Your task to perform on an android device: change alarm snooze length Image 0: 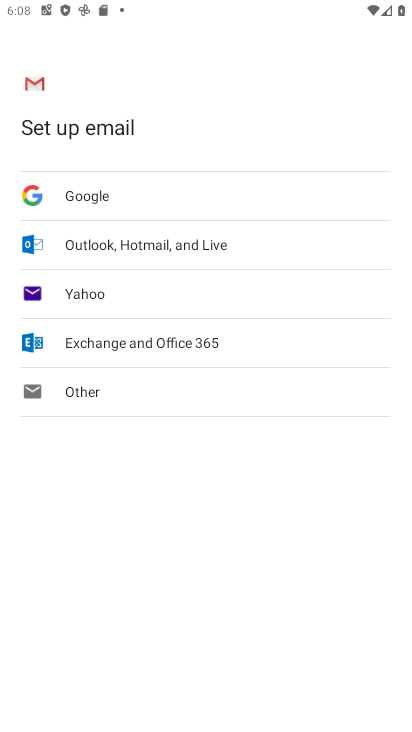
Step 0: press home button
Your task to perform on an android device: change alarm snooze length Image 1: 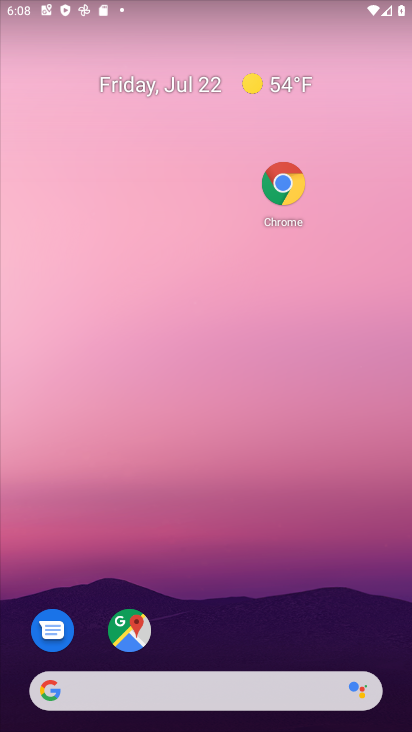
Step 1: drag from (187, 546) to (222, 138)
Your task to perform on an android device: change alarm snooze length Image 2: 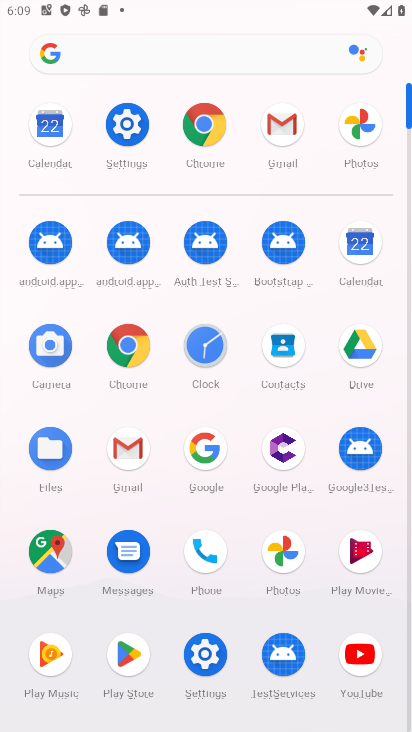
Step 2: click (190, 350)
Your task to perform on an android device: change alarm snooze length Image 3: 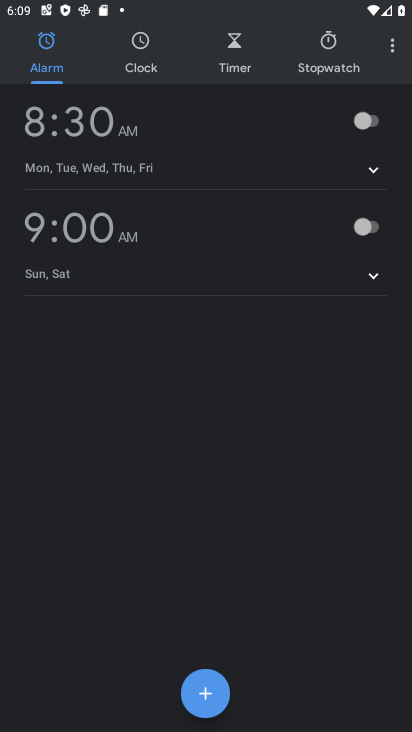
Step 3: click (392, 43)
Your task to perform on an android device: change alarm snooze length Image 4: 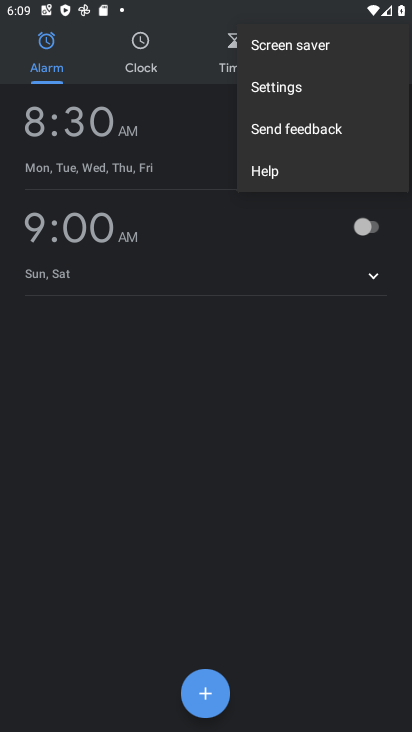
Step 4: click (301, 97)
Your task to perform on an android device: change alarm snooze length Image 5: 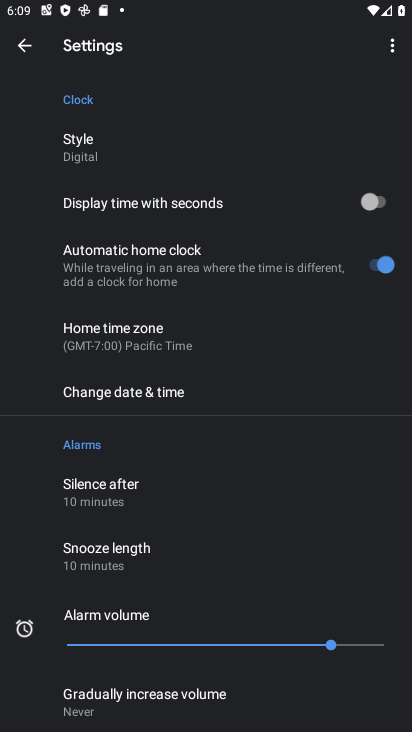
Step 5: click (122, 560)
Your task to perform on an android device: change alarm snooze length Image 6: 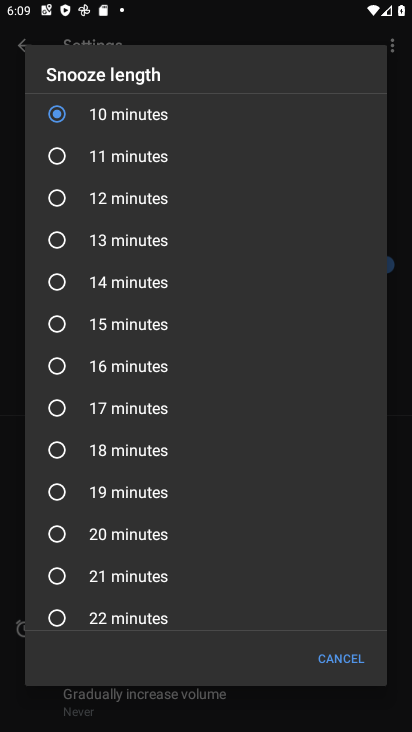
Step 6: click (52, 236)
Your task to perform on an android device: change alarm snooze length Image 7: 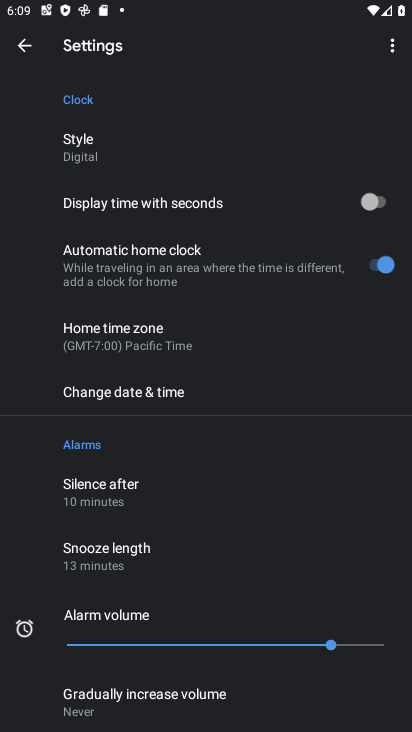
Step 7: task complete